Your task to perform on an android device: turn on data saver in the chrome app Image 0: 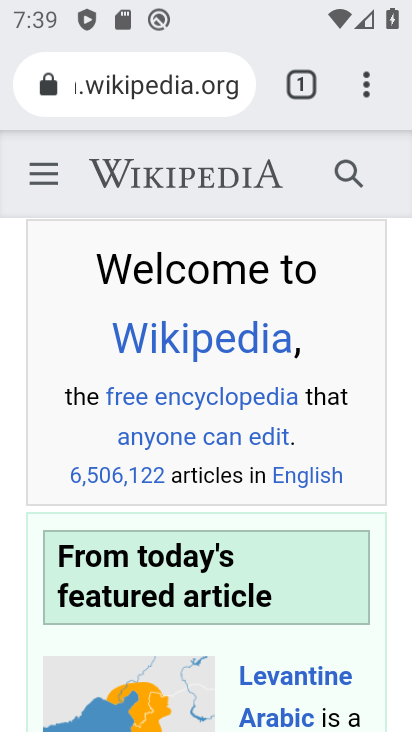
Step 0: press home button
Your task to perform on an android device: turn on data saver in the chrome app Image 1: 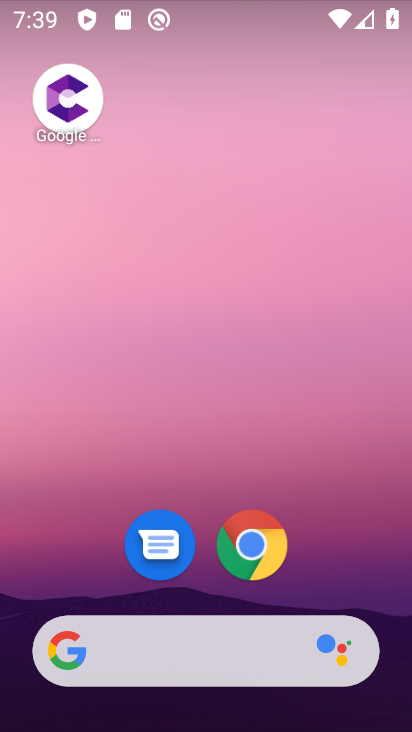
Step 1: click (259, 542)
Your task to perform on an android device: turn on data saver in the chrome app Image 2: 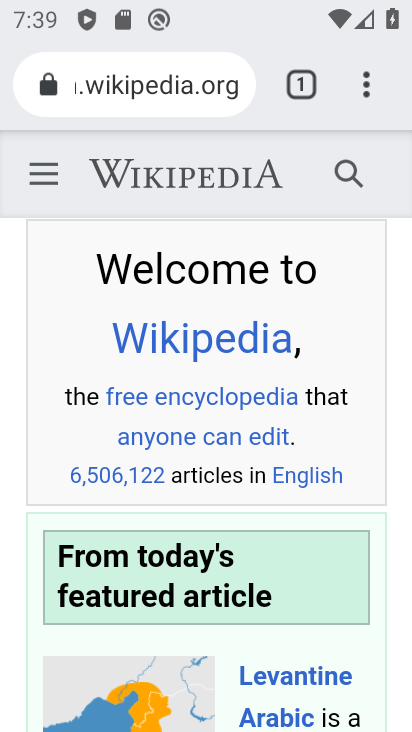
Step 2: click (372, 90)
Your task to perform on an android device: turn on data saver in the chrome app Image 3: 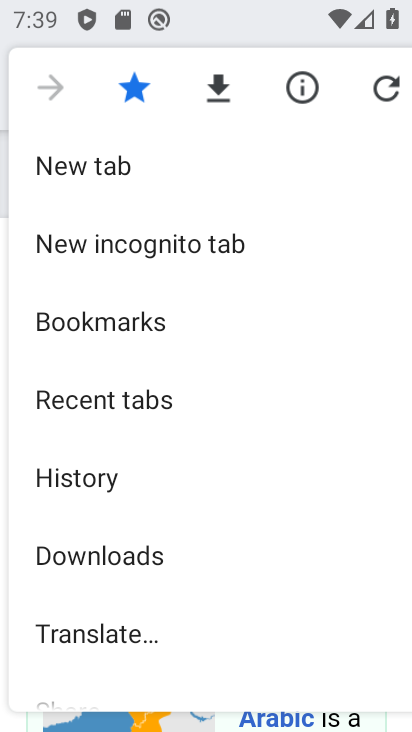
Step 3: drag from (150, 565) to (147, 298)
Your task to perform on an android device: turn on data saver in the chrome app Image 4: 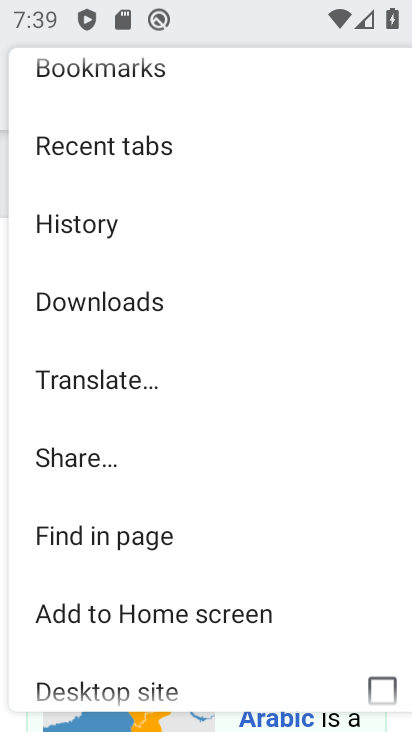
Step 4: drag from (157, 584) to (156, 401)
Your task to perform on an android device: turn on data saver in the chrome app Image 5: 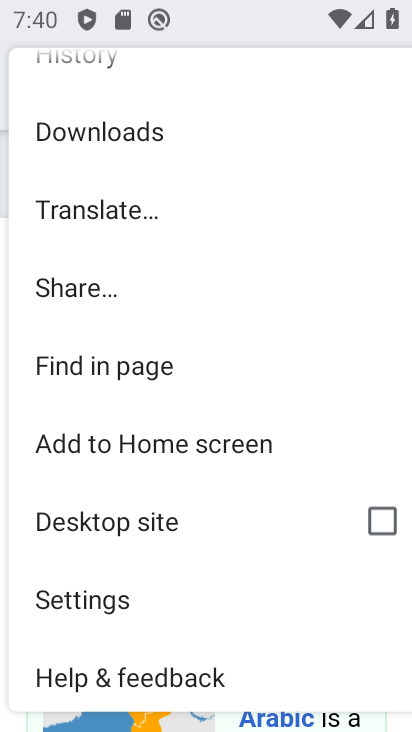
Step 5: click (85, 609)
Your task to perform on an android device: turn on data saver in the chrome app Image 6: 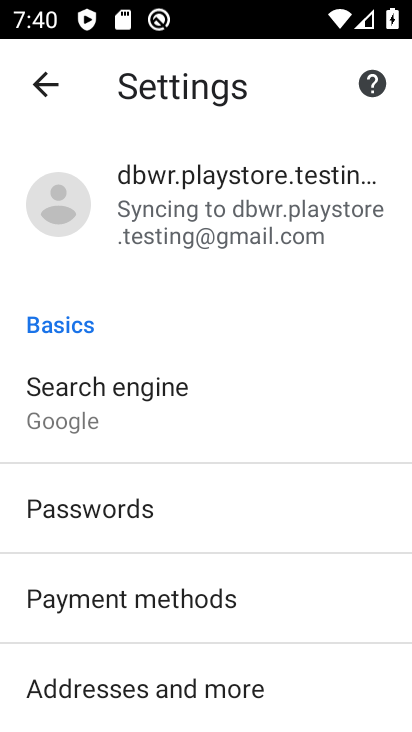
Step 6: drag from (284, 618) to (275, 428)
Your task to perform on an android device: turn on data saver in the chrome app Image 7: 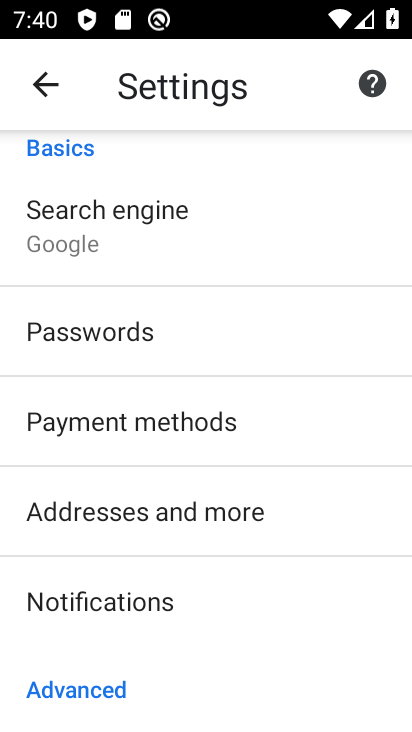
Step 7: drag from (256, 596) to (252, 411)
Your task to perform on an android device: turn on data saver in the chrome app Image 8: 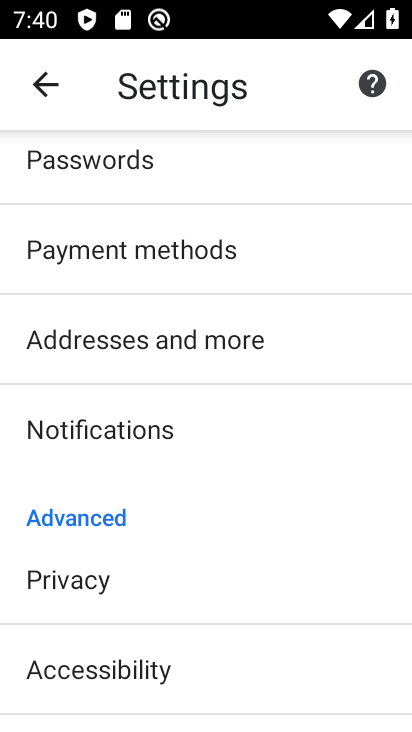
Step 8: drag from (258, 610) to (248, 454)
Your task to perform on an android device: turn on data saver in the chrome app Image 9: 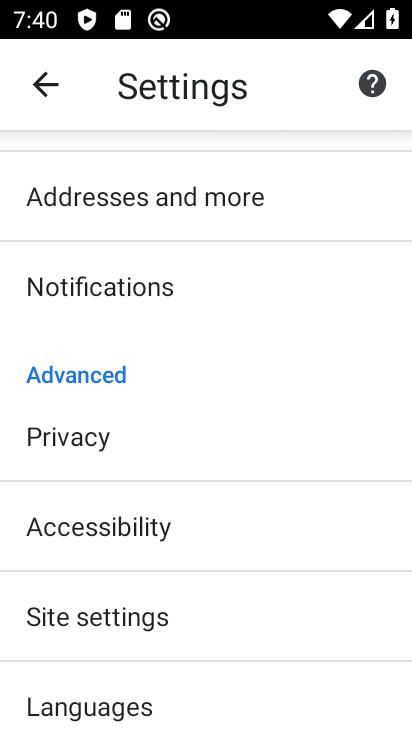
Step 9: drag from (284, 600) to (292, 501)
Your task to perform on an android device: turn on data saver in the chrome app Image 10: 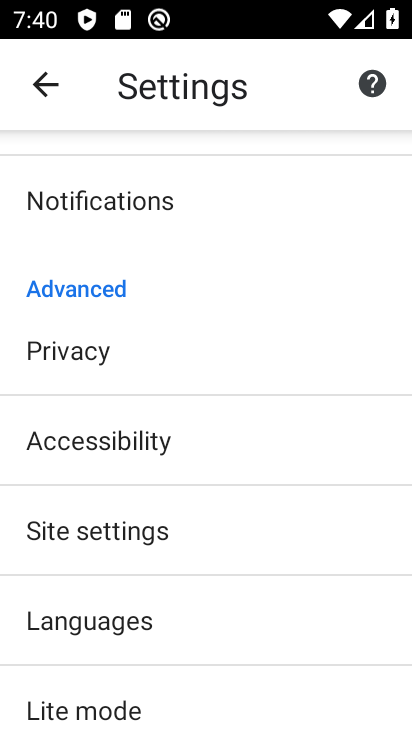
Step 10: click (187, 704)
Your task to perform on an android device: turn on data saver in the chrome app Image 11: 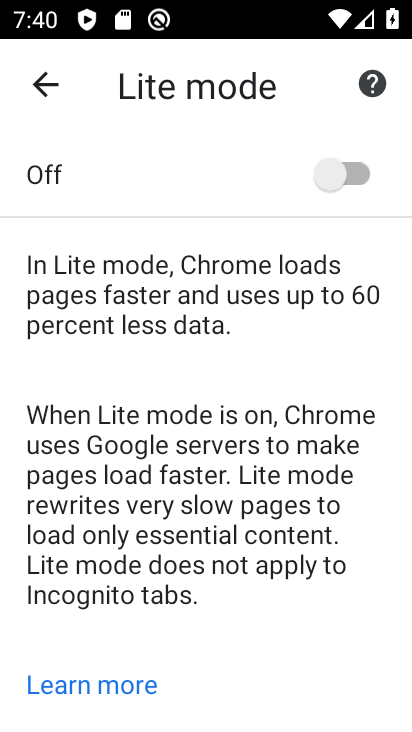
Step 11: click (357, 167)
Your task to perform on an android device: turn on data saver in the chrome app Image 12: 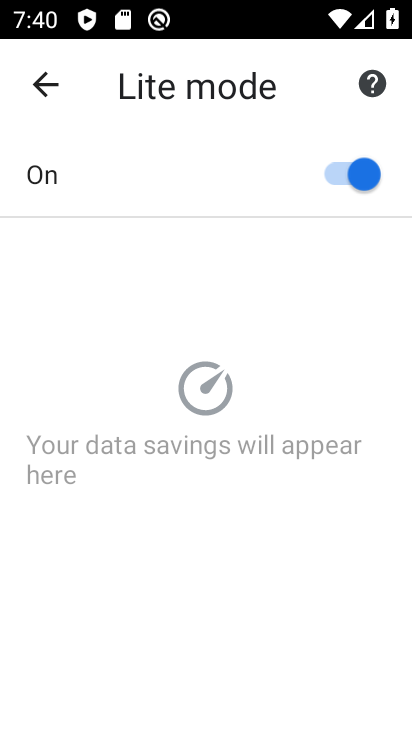
Step 12: task complete